Your task to perform on an android device: Add "logitech g903" to the cart on amazon, then select checkout. Image 0: 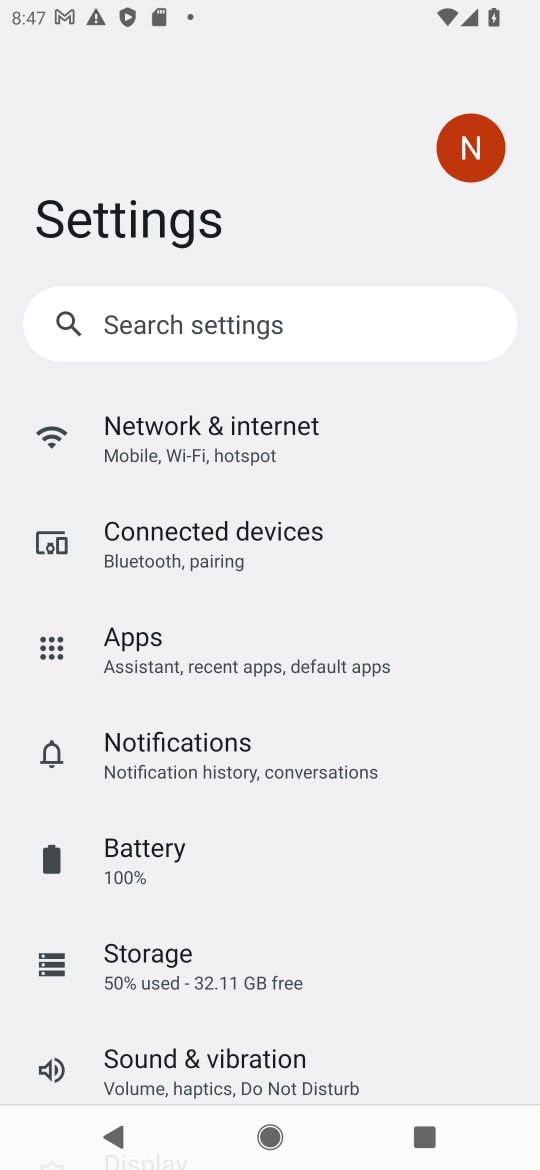
Step 0: press home button
Your task to perform on an android device: Add "logitech g903" to the cart on amazon, then select checkout. Image 1: 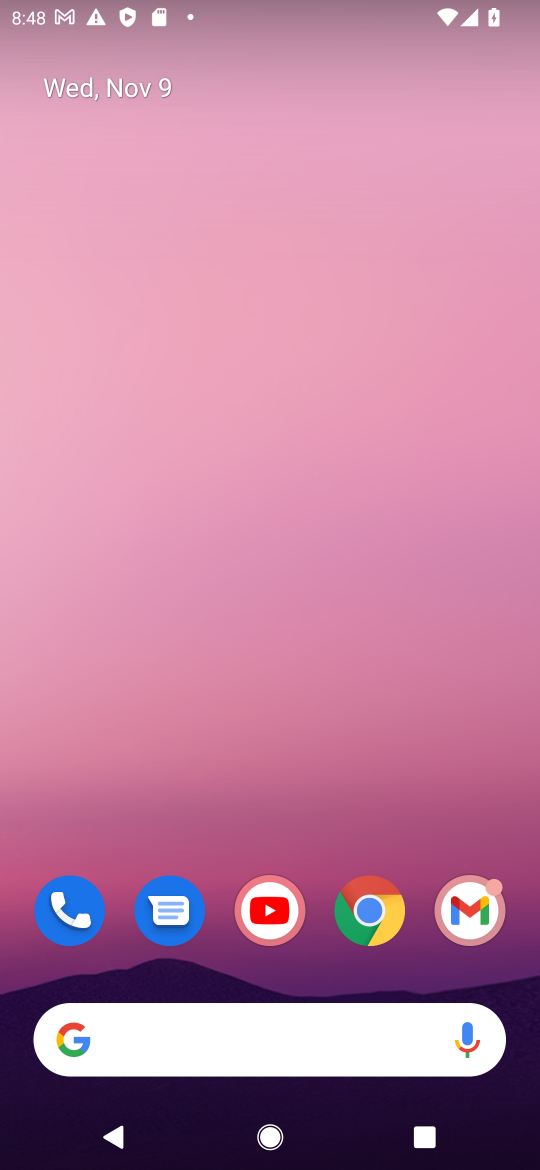
Step 1: click (360, 912)
Your task to perform on an android device: Add "logitech g903" to the cart on amazon, then select checkout. Image 2: 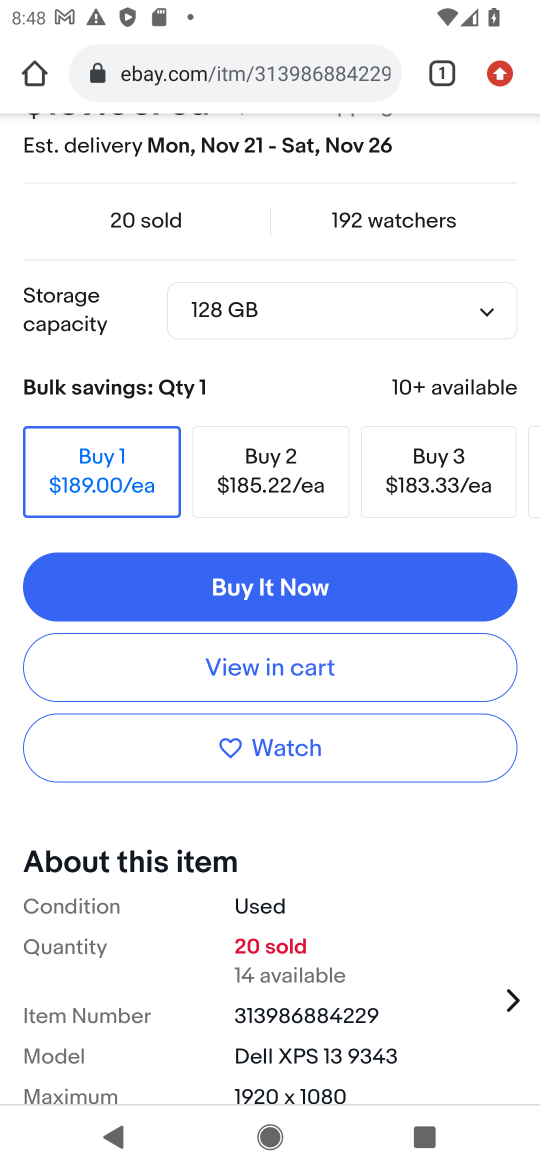
Step 2: click (216, 71)
Your task to perform on an android device: Add "logitech g903" to the cart on amazon, then select checkout. Image 3: 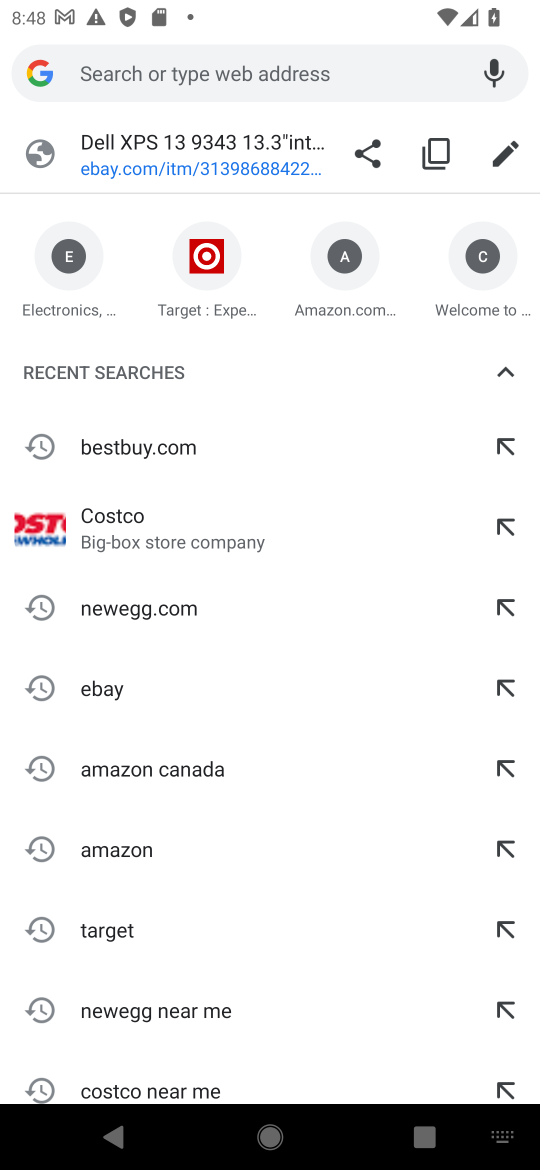
Step 3: click (333, 265)
Your task to perform on an android device: Add "logitech g903" to the cart on amazon, then select checkout. Image 4: 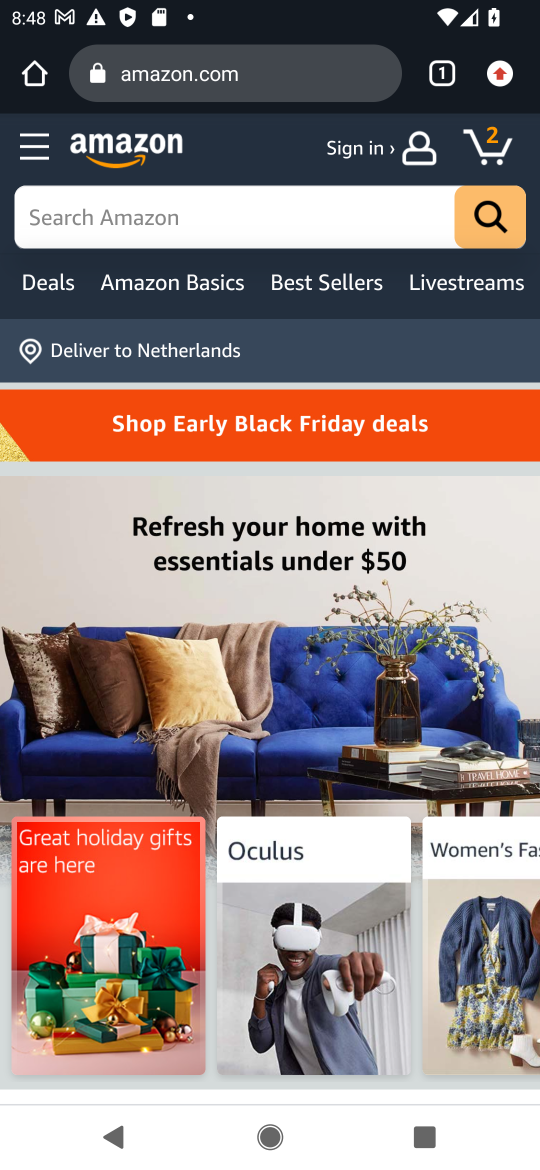
Step 4: click (136, 224)
Your task to perform on an android device: Add "logitech g903" to the cart on amazon, then select checkout. Image 5: 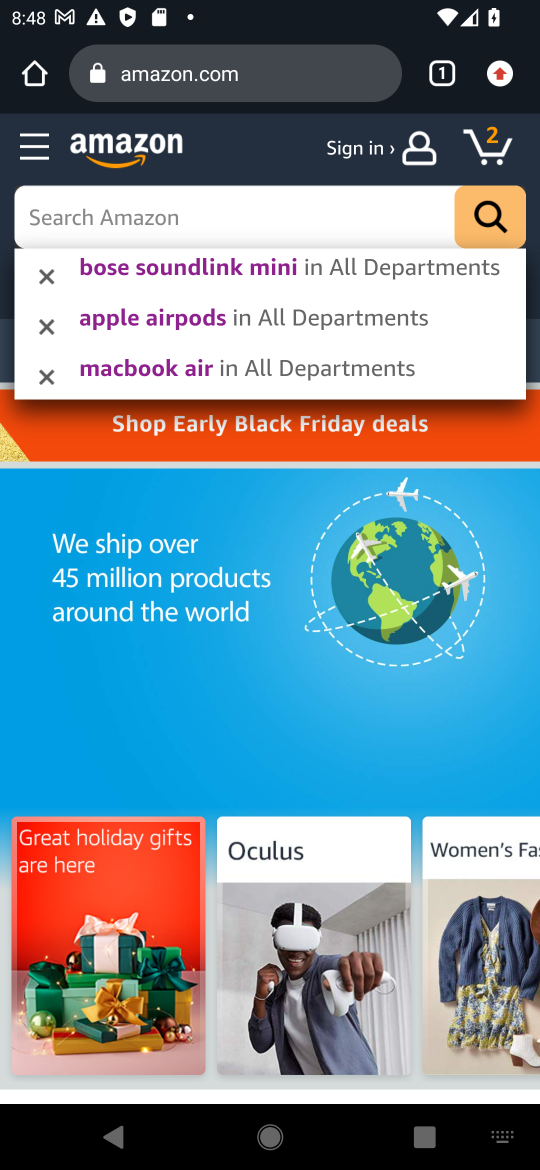
Step 5: type "logitech g903"
Your task to perform on an android device: Add "logitech g903" to the cart on amazon, then select checkout. Image 6: 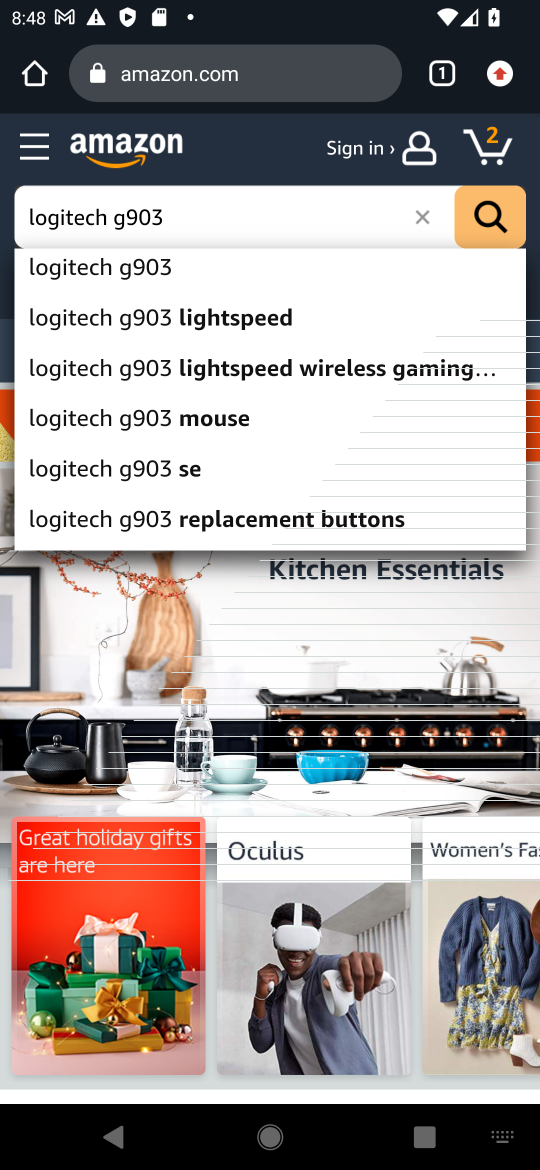
Step 6: click (112, 268)
Your task to perform on an android device: Add "logitech g903" to the cart on amazon, then select checkout. Image 7: 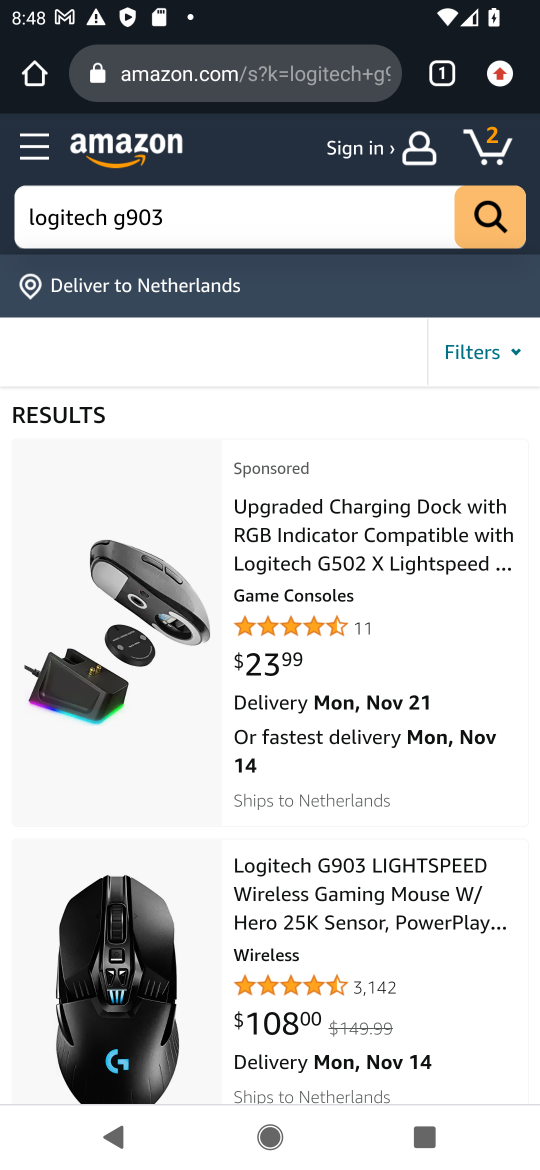
Step 7: click (139, 971)
Your task to perform on an android device: Add "logitech g903" to the cart on amazon, then select checkout. Image 8: 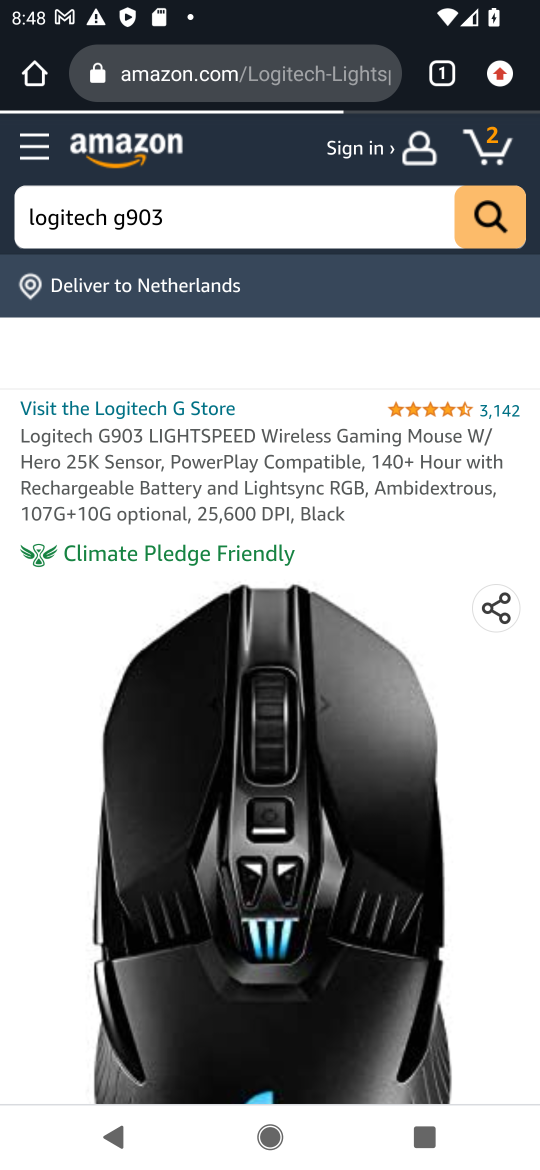
Step 8: drag from (229, 891) to (235, 328)
Your task to perform on an android device: Add "logitech g903" to the cart on amazon, then select checkout. Image 9: 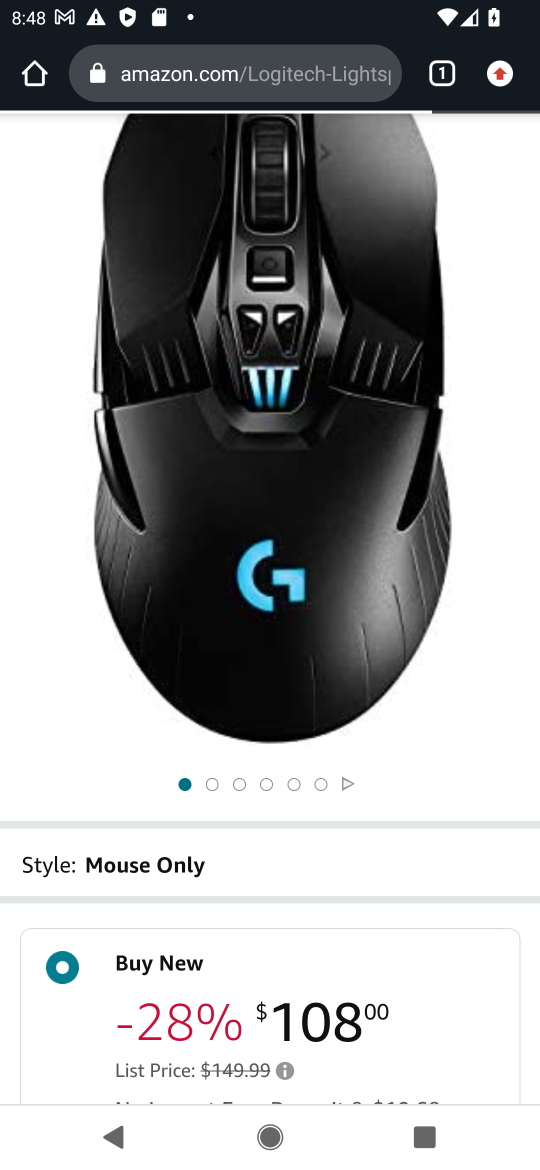
Step 9: drag from (229, 902) to (229, 426)
Your task to perform on an android device: Add "logitech g903" to the cart on amazon, then select checkout. Image 10: 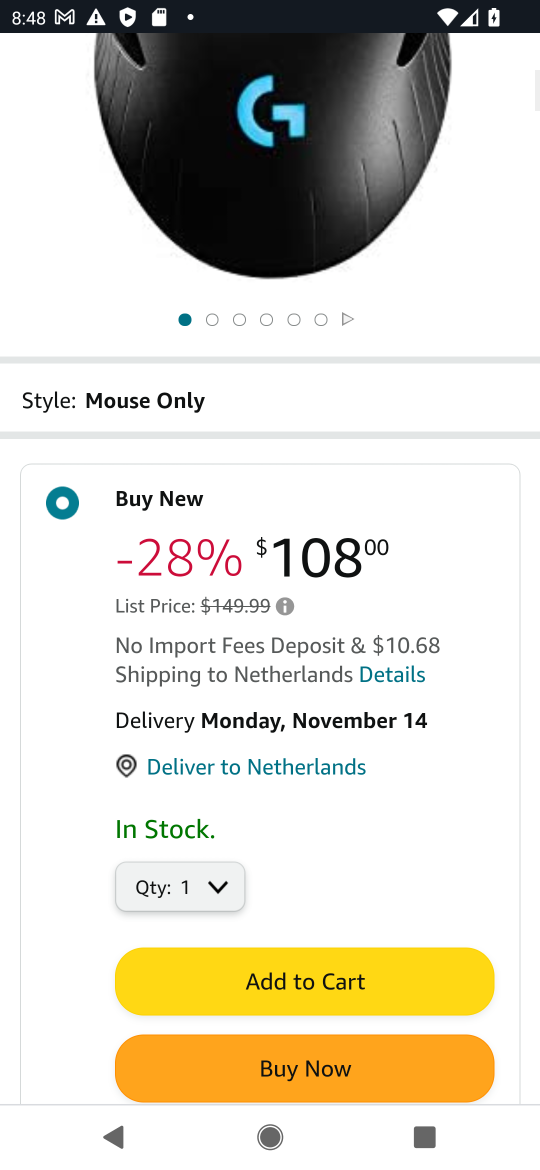
Step 10: drag from (244, 861) to (250, 643)
Your task to perform on an android device: Add "logitech g903" to the cart on amazon, then select checkout. Image 11: 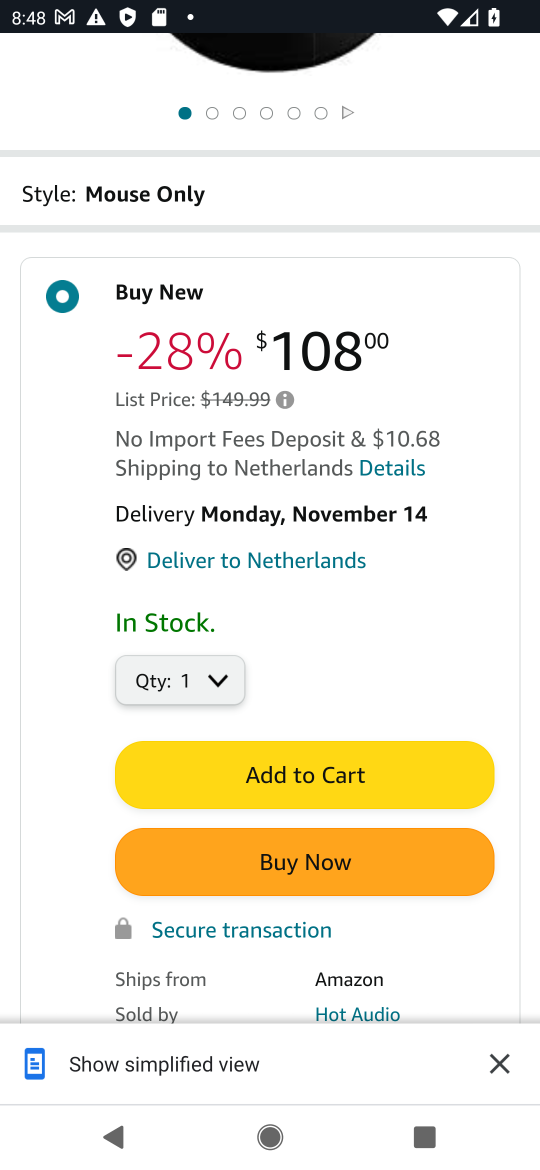
Step 11: click (284, 768)
Your task to perform on an android device: Add "logitech g903" to the cart on amazon, then select checkout. Image 12: 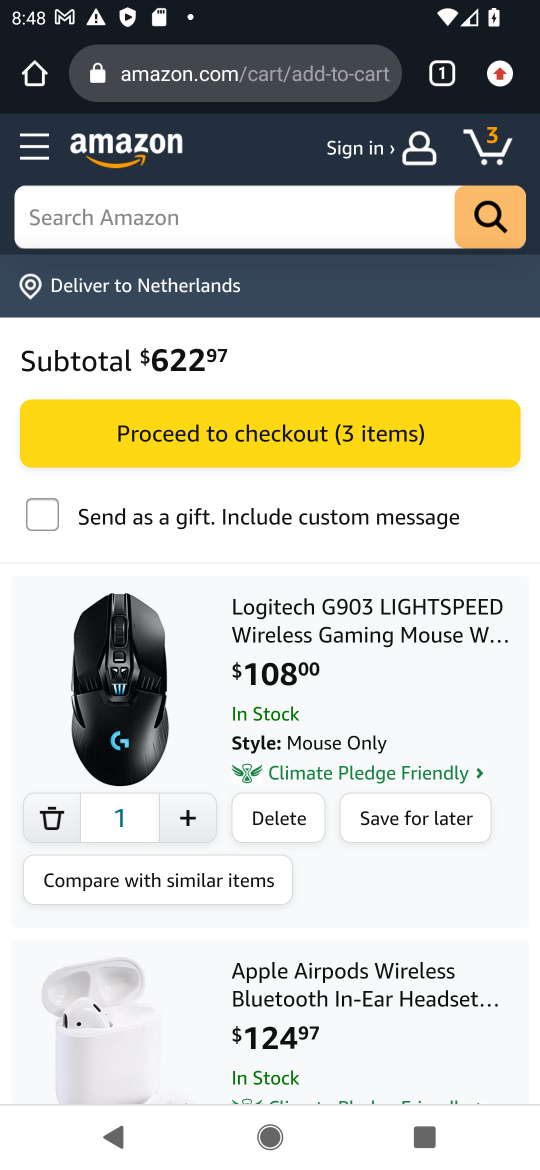
Step 12: click (293, 442)
Your task to perform on an android device: Add "logitech g903" to the cart on amazon, then select checkout. Image 13: 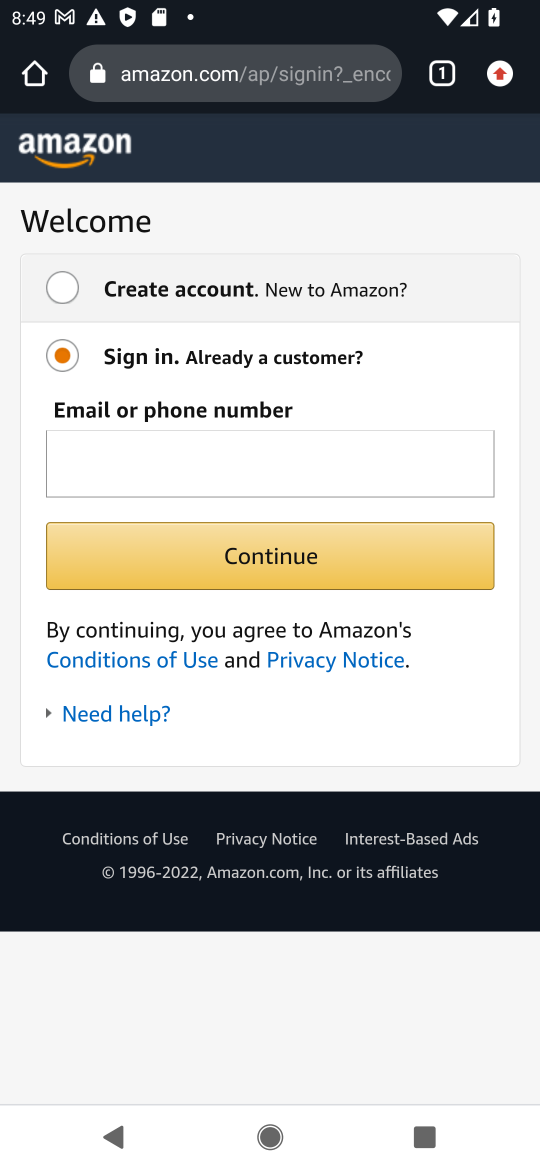
Step 13: task complete